Your task to perform on an android device: Is it going to rain today? Image 0: 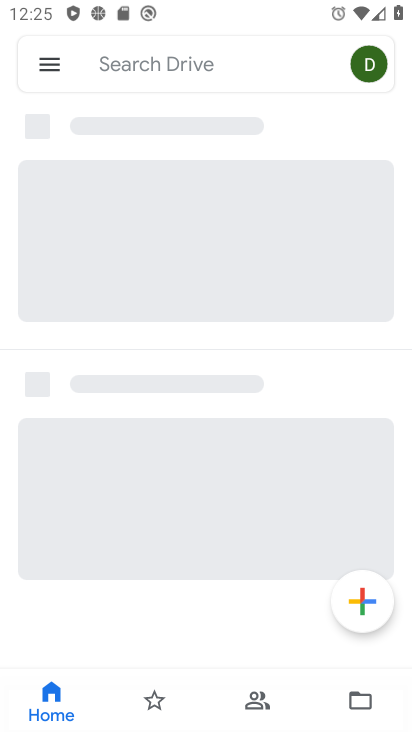
Step 0: press home button
Your task to perform on an android device: Is it going to rain today? Image 1: 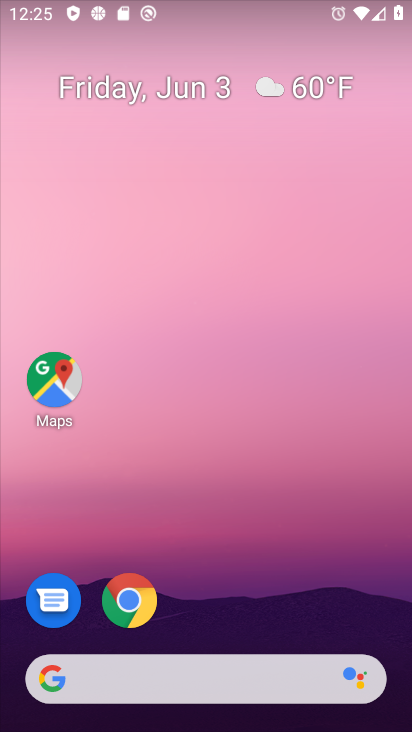
Step 1: click (308, 88)
Your task to perform on an android device: Is it going to rain today? Image 2: 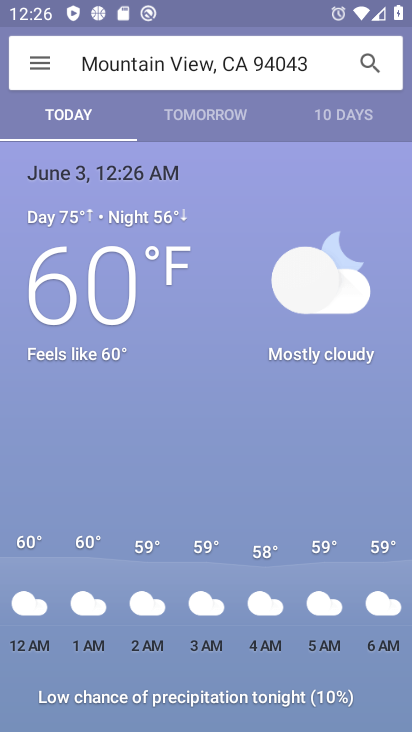
Step 2: task complete